Your task to perform on an android device: Go to Amazon Image 0: 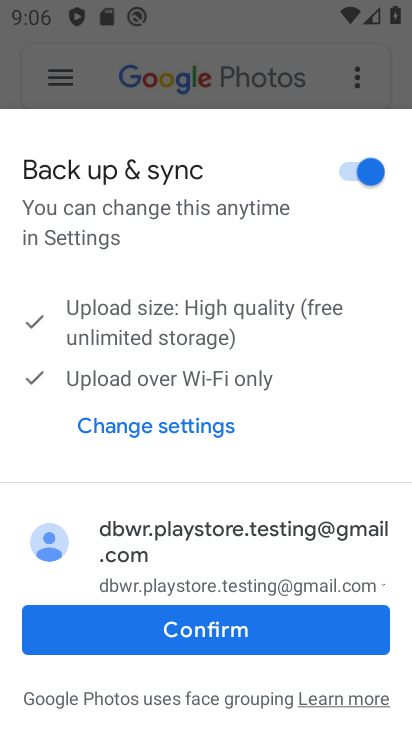
Step 0: press home button
Your task to perform on an android device: Go to Amazon Image 1: 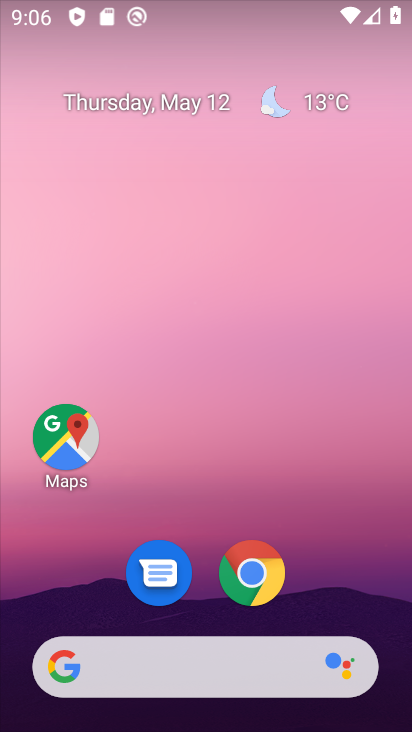
Step 1: click (252, 576)
Your task to perform on an android device: Go to Amazon Image 2: 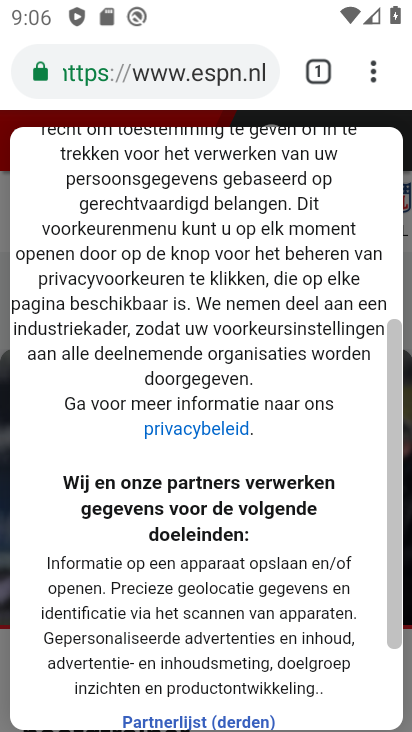
Step 2: click (86, 313)
Your task to perform on an android device: Go to Amazon Image 3: 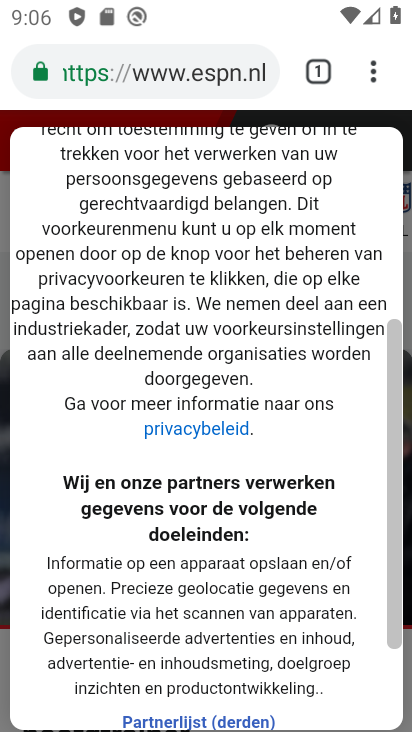
Step 3: press back button
Your task to perform on an android device: Go to Amazon Image 4: 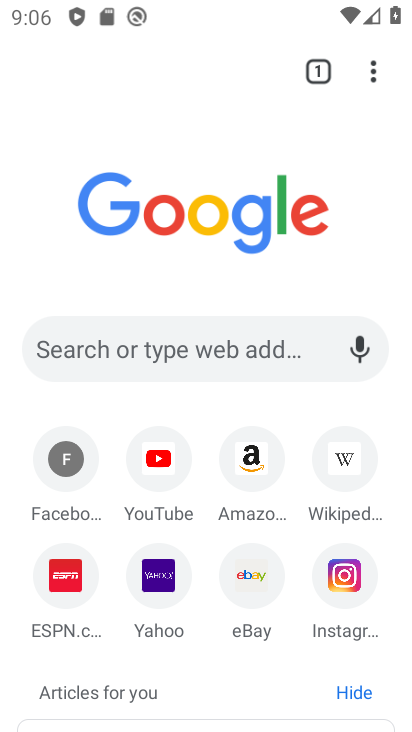
Step 4: click (256, 455)
Your task to perform on an android device: Go to Amazon Image 5: 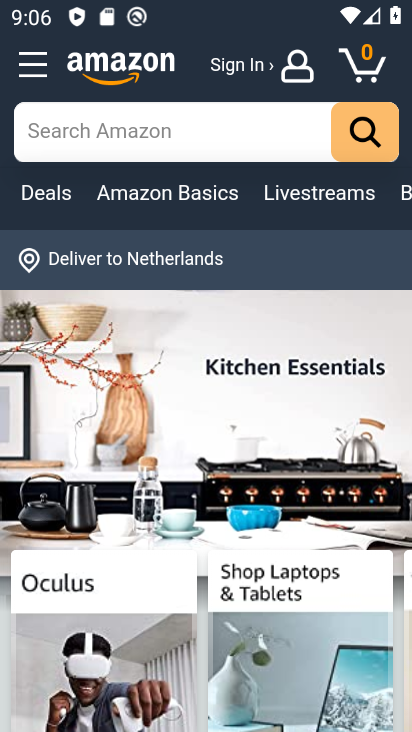
Step 5: task complete